Your task to perform on an android device: add a contact Image 0: 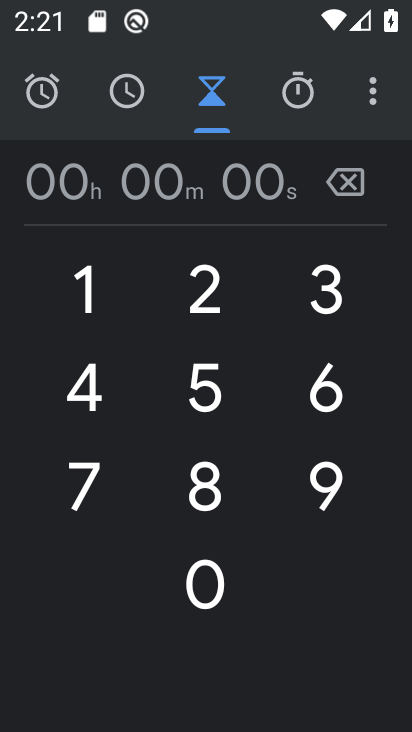
Step 0: press home button
Your task to perform on an android device: add a contact Image 1: 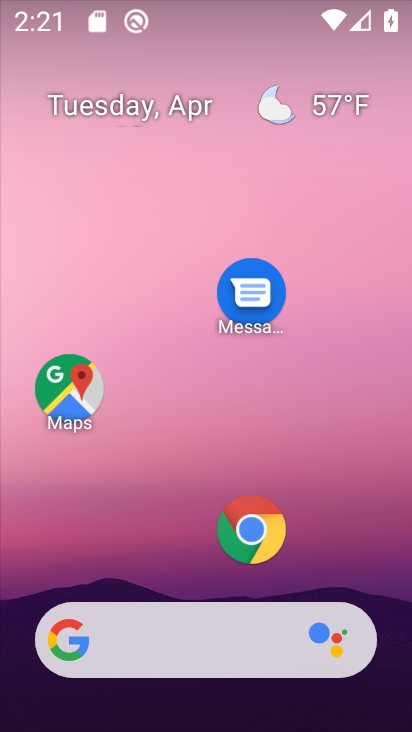
Step 1: drag from (199, 539) to (163, 119)
Your task to perform on an android device: add a contact Image 2: 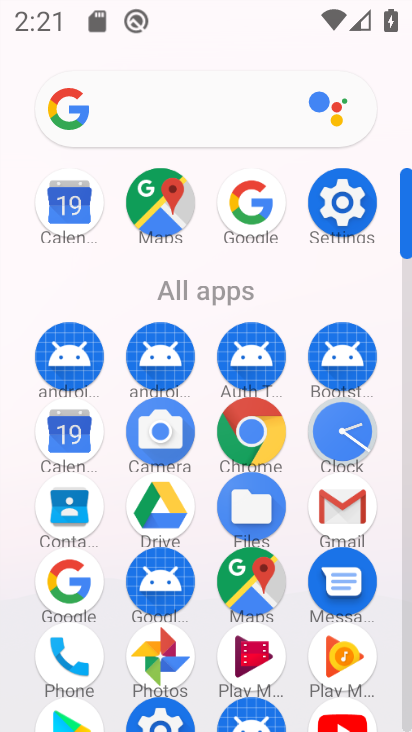
Step 2: click (69, 507)
Your task to perform on an android device: add a contact Image 3: 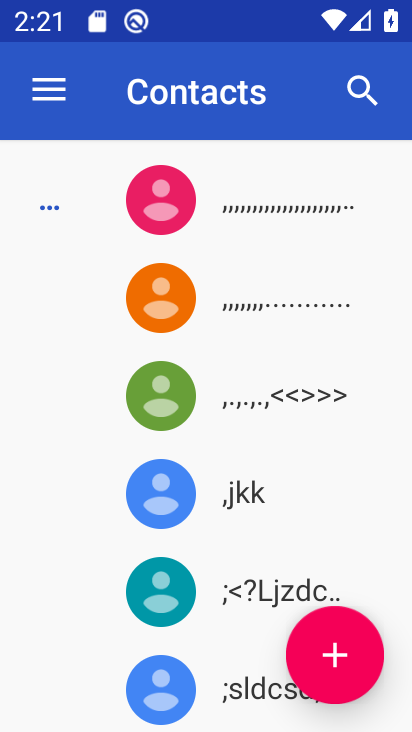
Step 3: click (332, 659)
Your task to perform on an android device: add a contact Image 4: 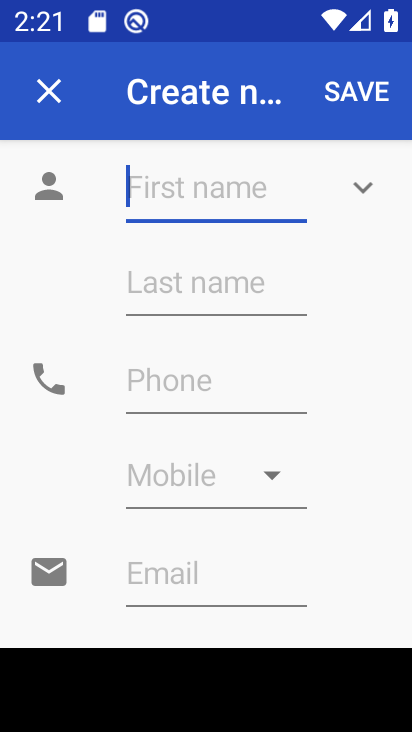
Step 4: type "yur"
Your task to perform on an android device: add a contact Image 5: 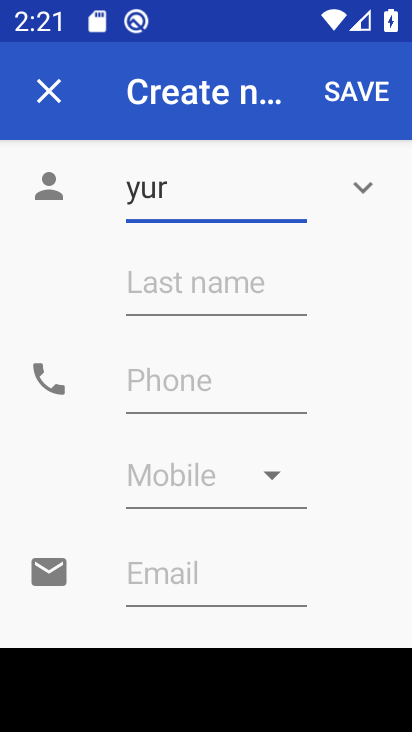
Step 5: click (345, 91)
Your task to perform on an android device: add a contact Image 6: 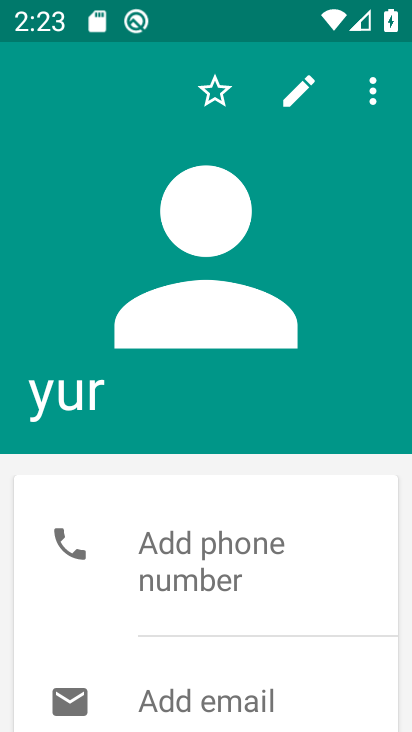
Step 6: task complete